Your task to perform on an android device: Clear all items from cart on ebay. Search for "logitech g502" on ebay, select the first entry, and add it to the cart. Image 0: 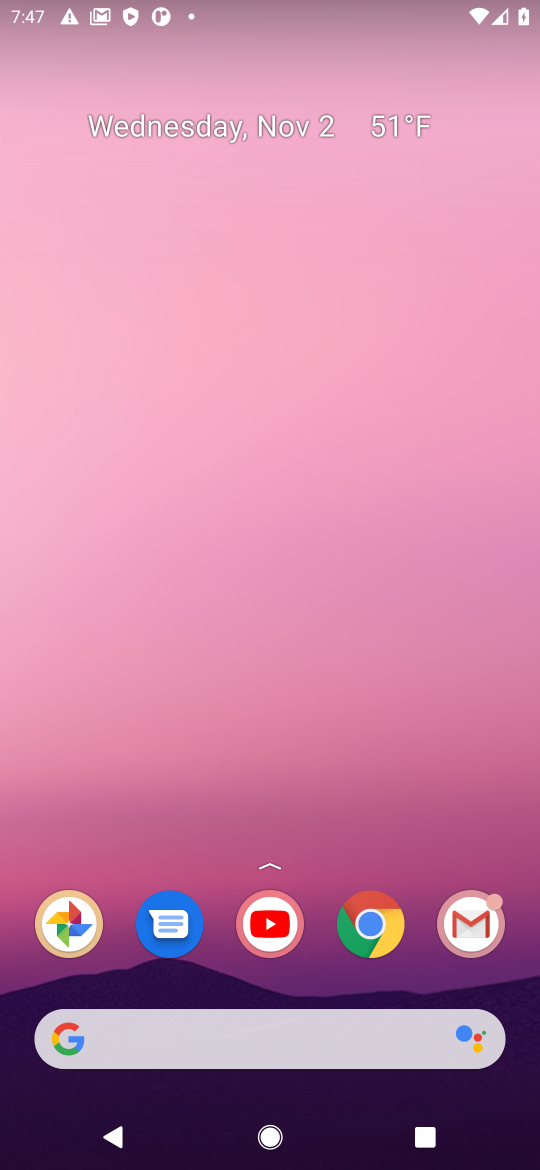
Step 0: click (380, 933)
Your task to perform on an android device: Clear all items from cart on ebay. Search for "logitech g502" on ebay, select the first entry, and add it to the cart. Image 1: 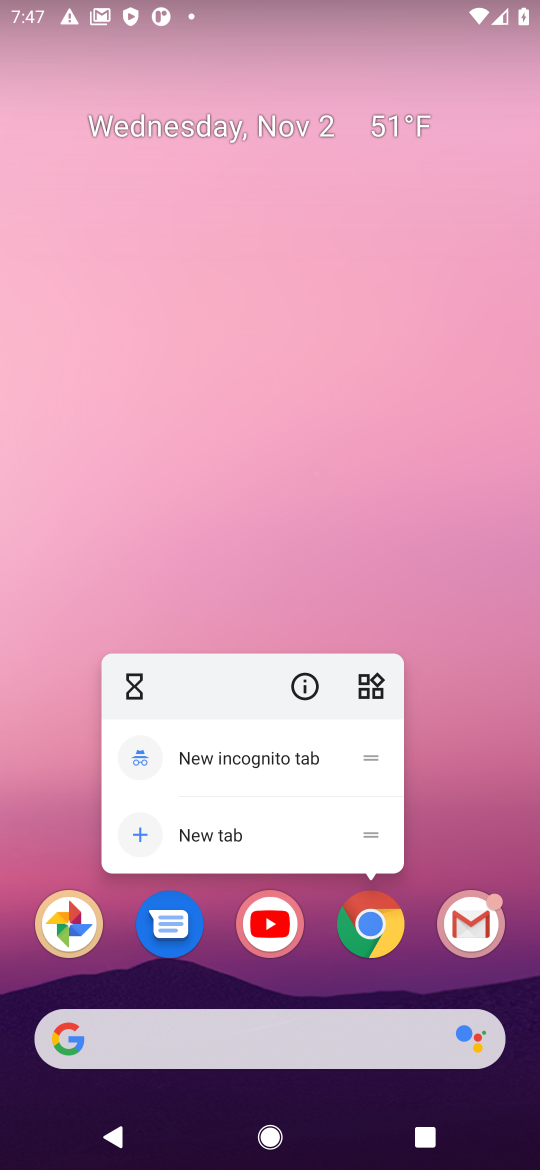
Step 1: click (383, 935)
Your task to perform on an android device: Clear all items from cart on ebay. Search for "logitech g502" on ebay, select the first entry, and add it to the cart. Image 2: 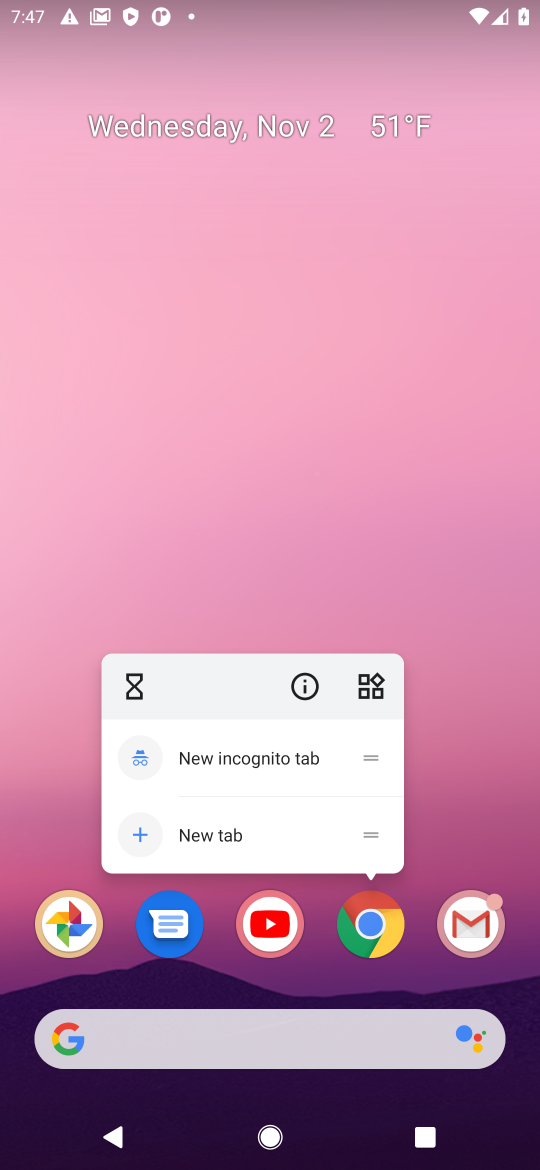
Step 2: click (384, 935)
Your task to perform on an android device: Clear all items from cart on ebay. Search for "logitech g502" on ebay, select the first entry, and add it to the cart. Image 3: 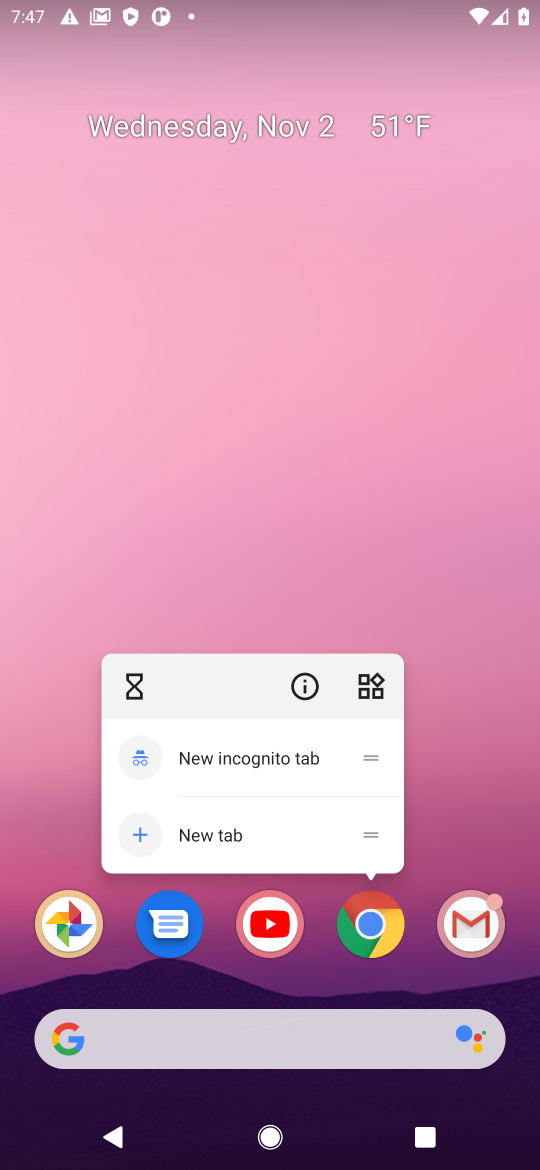
Step 3: click (386, 933)
Your task to perform on an android device: Clear all items from cart on ebay. Search for "logitech g502" on ebay, select the first entry, and add it to the cart. Image 4: 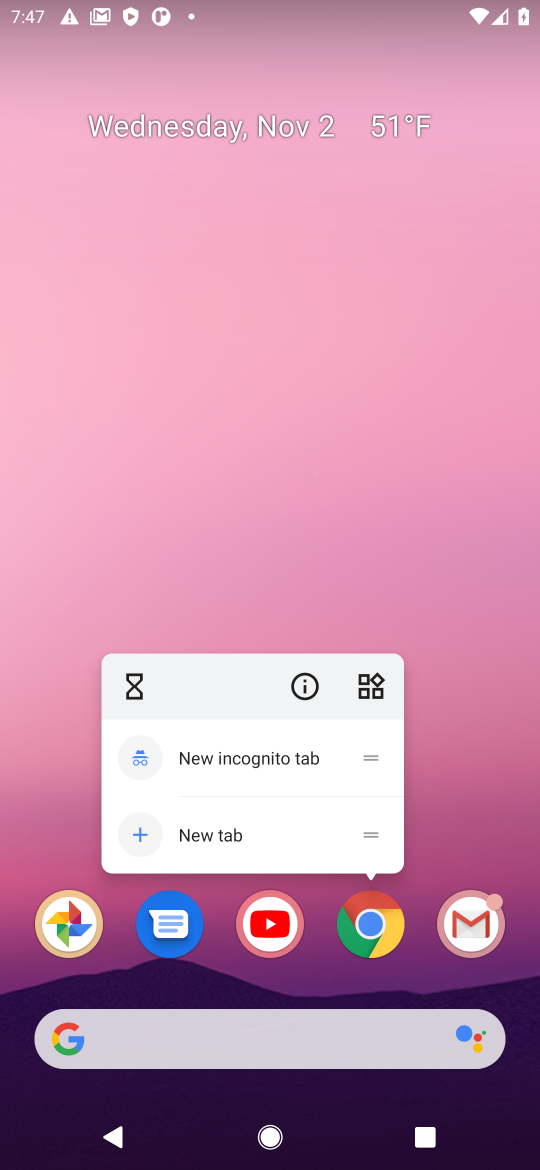
Step 4: press home button
Your task to perform on an android device: Clear all items from cart on ebay. Search for "logitech g502" on ebay, select the first entry, and add it to the cart. Image 5: 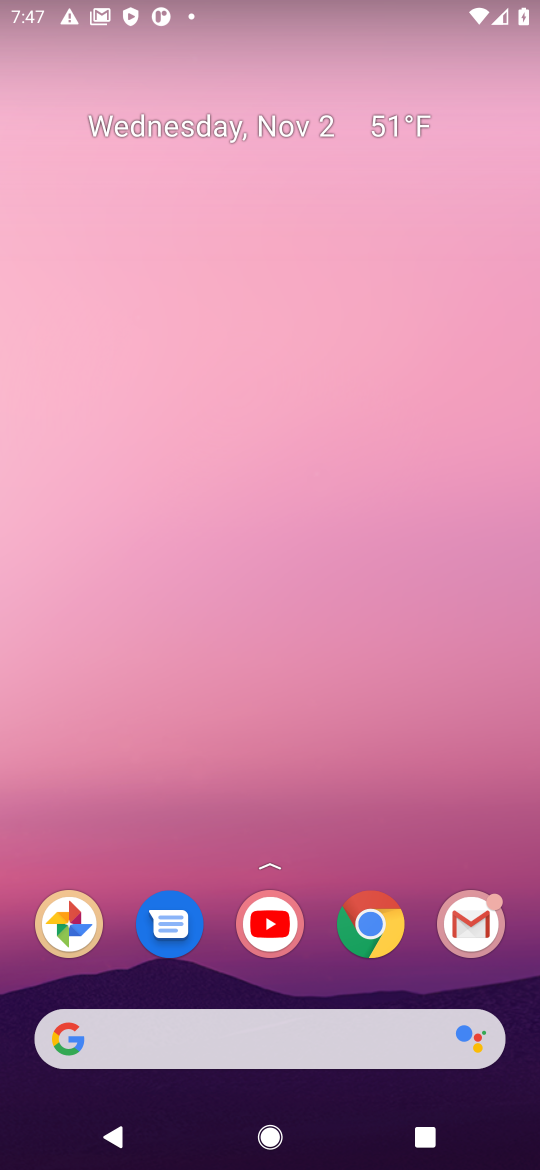
Step 5: press home button
Your task to perform on an android device: Clear all items from cart on ebay. Search for "logitech g502" on ebay, select the first entry, and add it to the cart. Image 6: 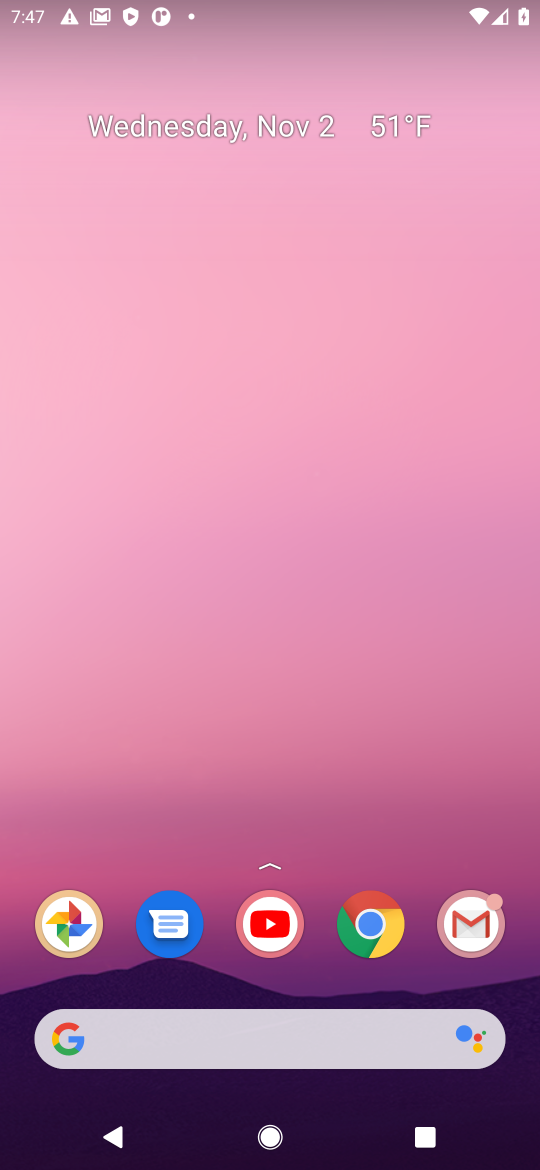
Step 6: press home button
Your task to perform on an android device: Clear all items from cart on ebay. Search for "logitech g502" on ebay, select the first entry, and add it to the cart. Image 7: 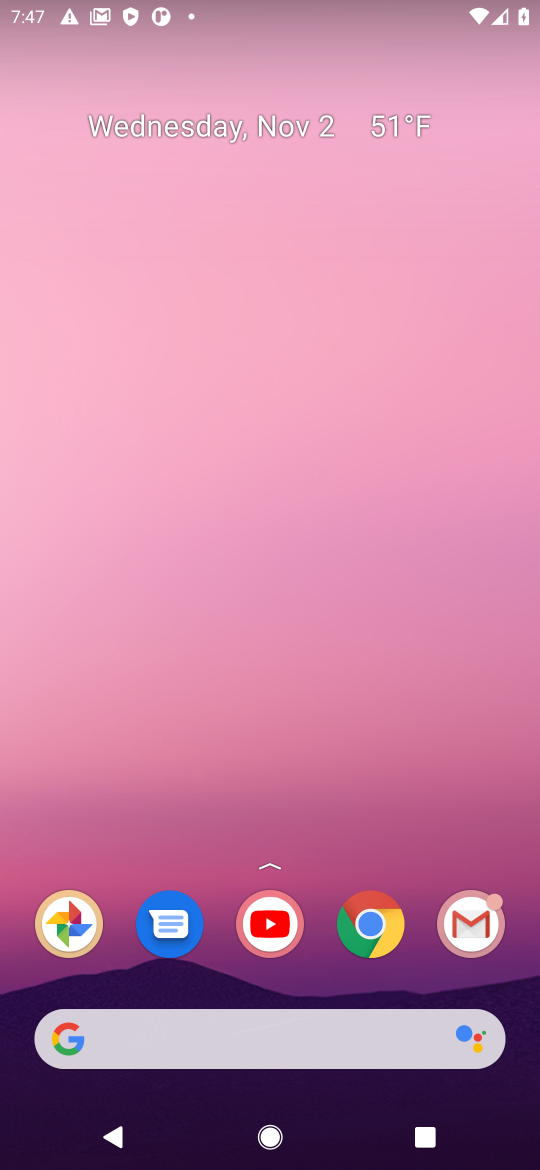
Step 7: press home button
Your task to perform on an android device: Clear all items from cart on ebay. Search for "logitech g502" on ebay, select the first entry, and add it to the cart. Image 8: 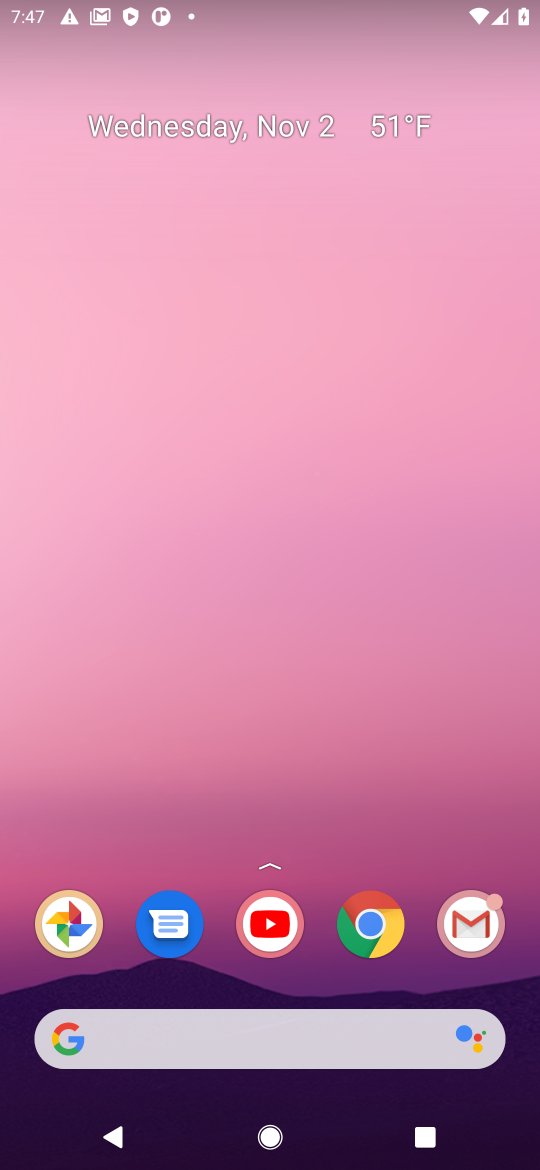
Step 8: click (381, 934)
Your task to perform on an android device: Clear all items from cart on ebay. Search for "logitech g502" on ebay, select the first entry, and add it to the cart. Image 9: 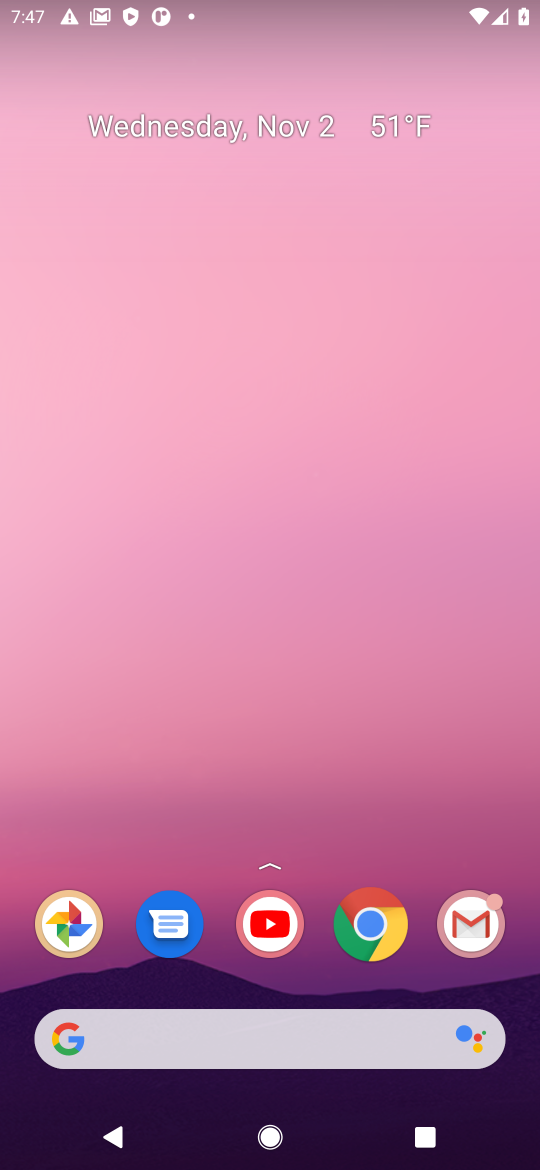
Step 9: click (360, 934)
Your task to perform on an android device: Clear all items from cart on ebay. Search for "logitech g502" on ebay, select the first entry, and add it to the cart. Image 10: 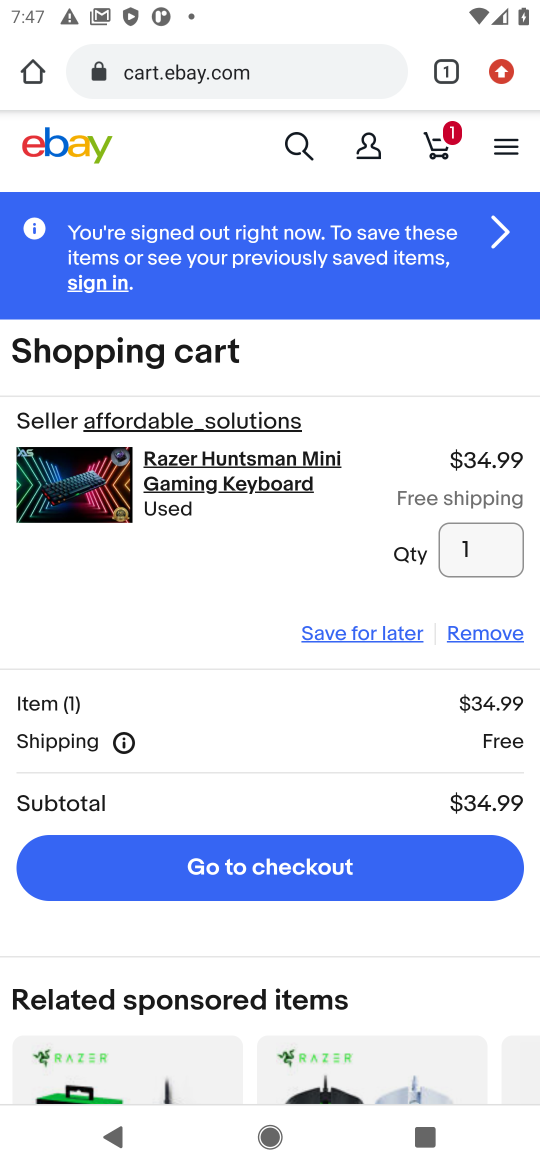
Step 10: press back button
Your task to perform on an android device: Clear all items from cart on ebay. Search for "logitech g502" on ebay, select the first entry, and add it to the cart. Image 11: 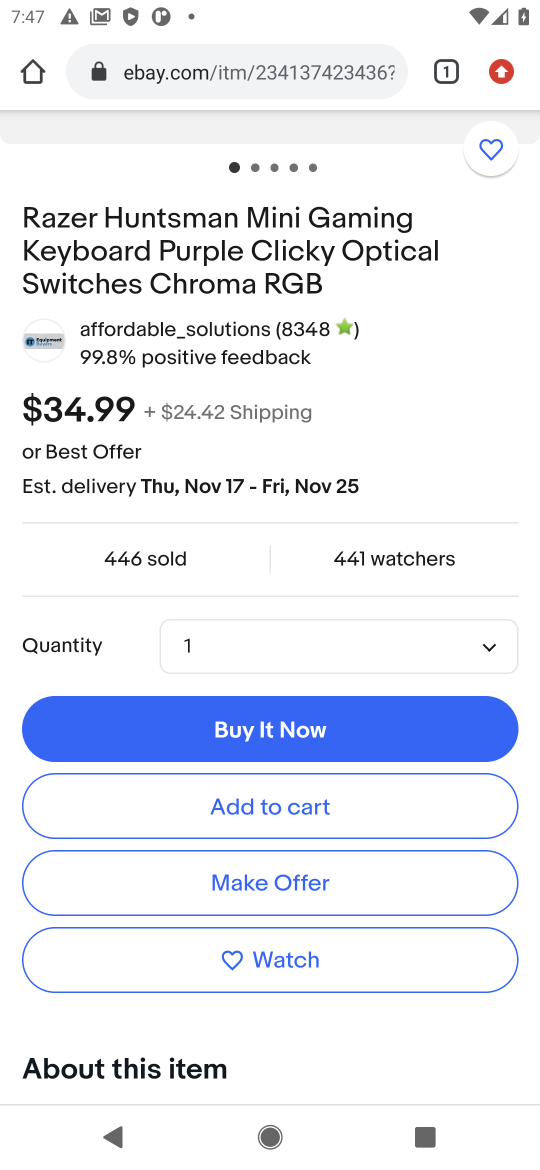
Step 11: press back button
Your task to perform on an android device: Clear all items from cart on ebay. Search for "logitech g502" on ebay, select the first entry, and add it to the cart. Image 12: 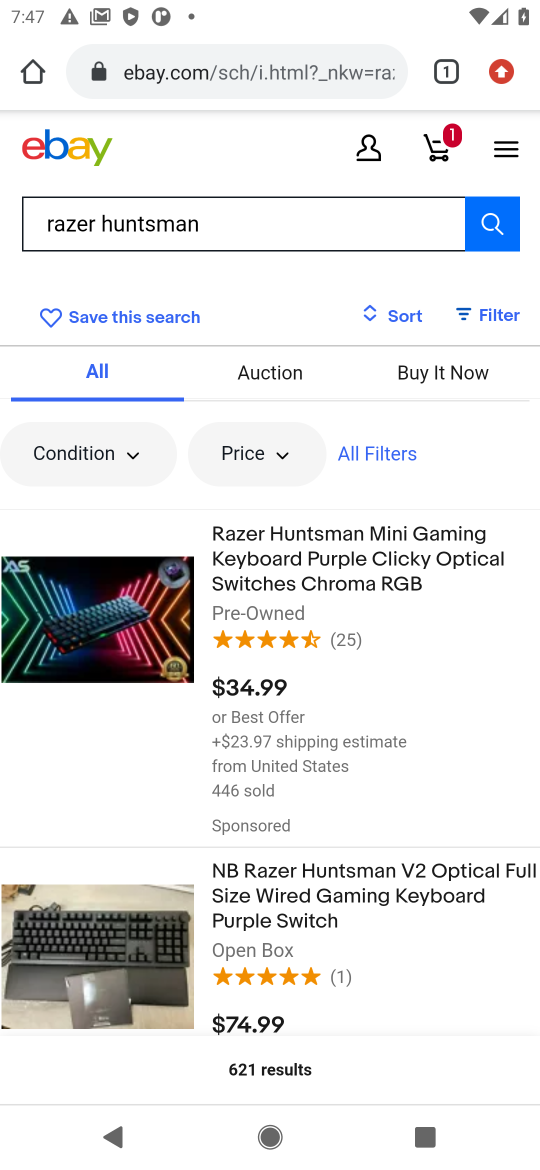
Step 12: click (375, 218)
Your task to perform on an android device: Clear all items from cart on ebay. Search for "logitech g502" on ebay, select the first entry, and add it to the cart. Image 13: 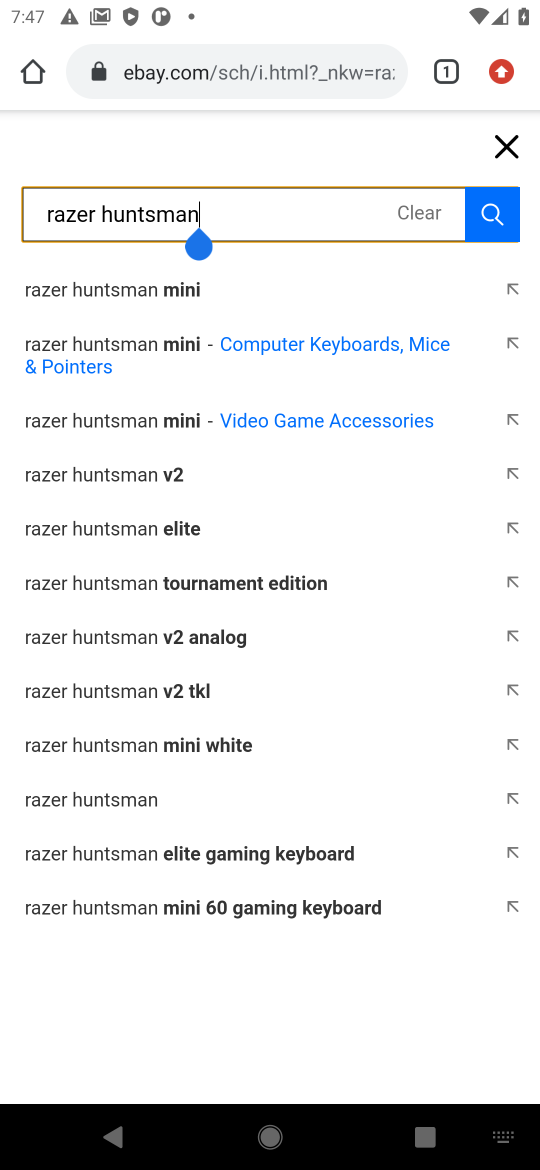
Step 13: click (408, 214)
Your task to perform on an android device: Clear all items from cart on ebay. Search for "logitech g502" on ebay, select the first entry, and add it to the cart. Image 14: 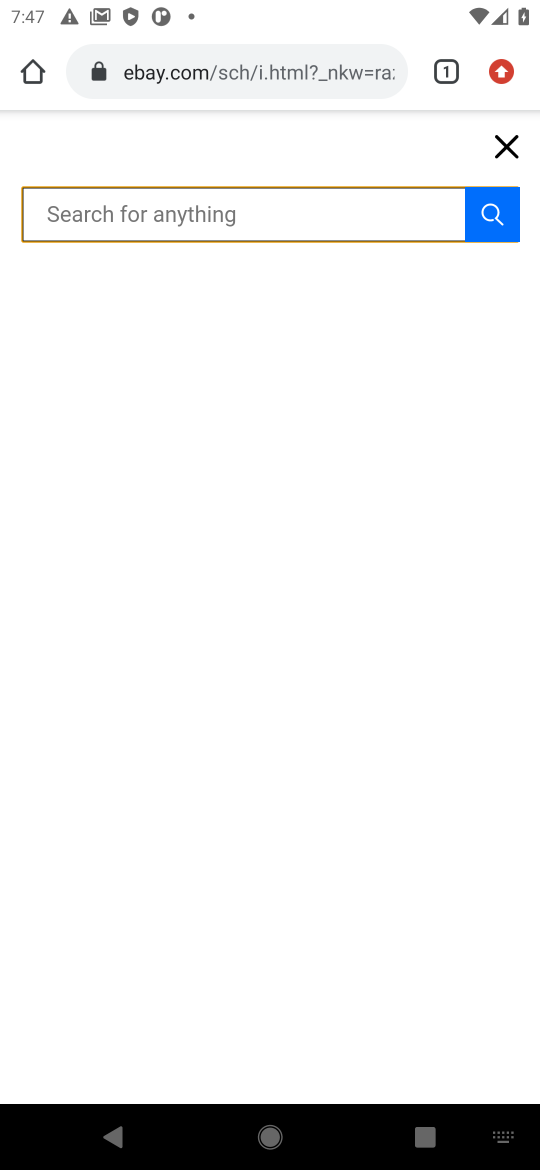
Step 14: type "logitech g 502"
Your task to perform on an android device: Clear all items from cart on ebay. Search for "logitech g502" on ebay, select the first entry, and add it to the cart. Image 15: 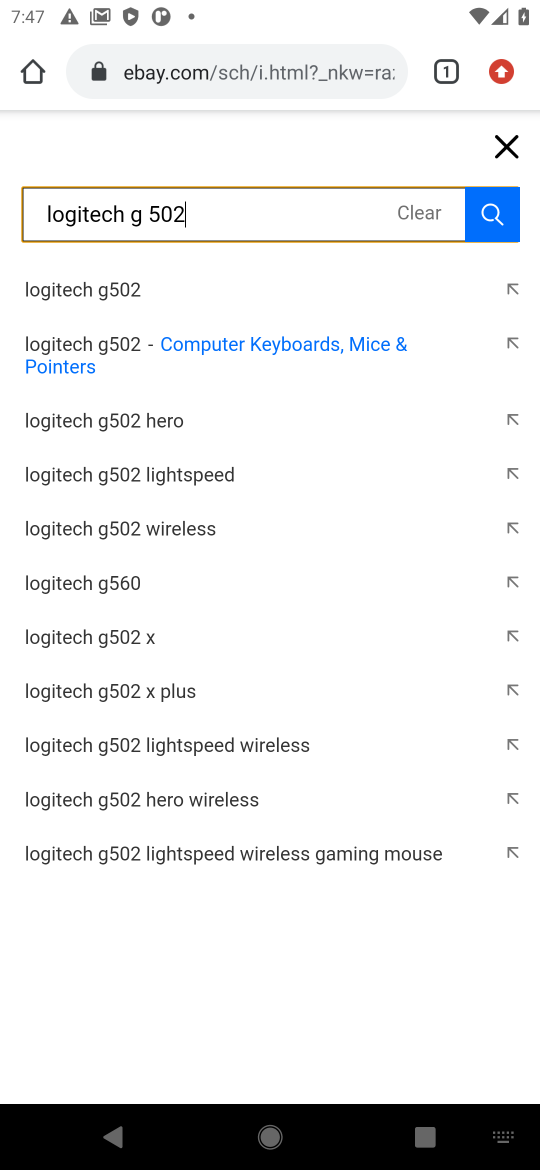
Step 15: click (72, 282)
Your task to perform on an android device: Clear all items from cart on ebay. Search for "logitech g502" on ebay, select the first entry, and add it to the cart. Image 16: 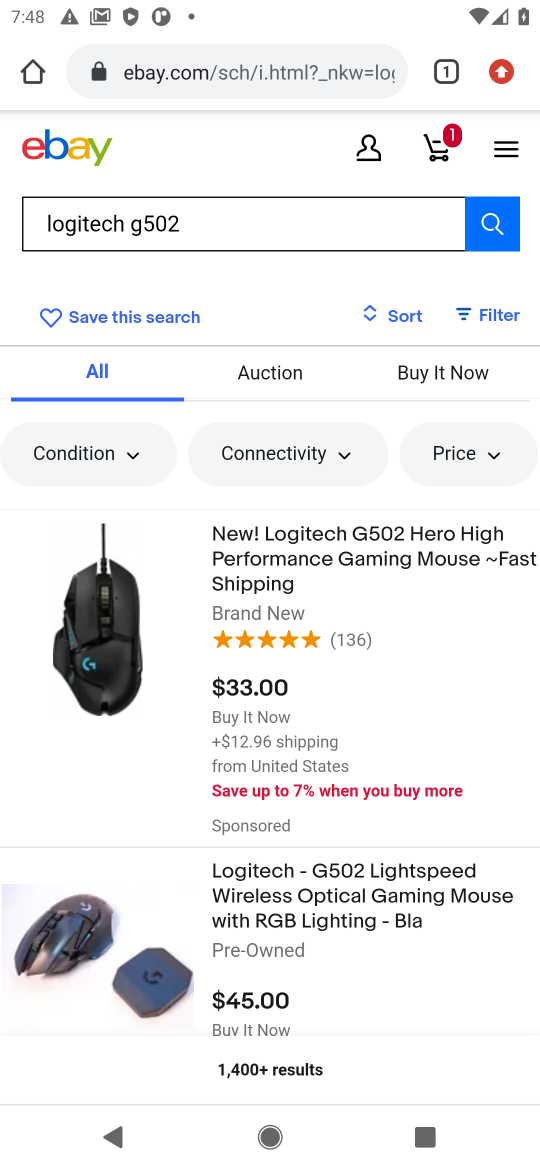
Step 16: click (293, 536)
Your task to perform on an android device: Clear all items from cart on ebay. Search for "logitech g502" on ebay, select the first entry, and add it to the cart. Image 17: 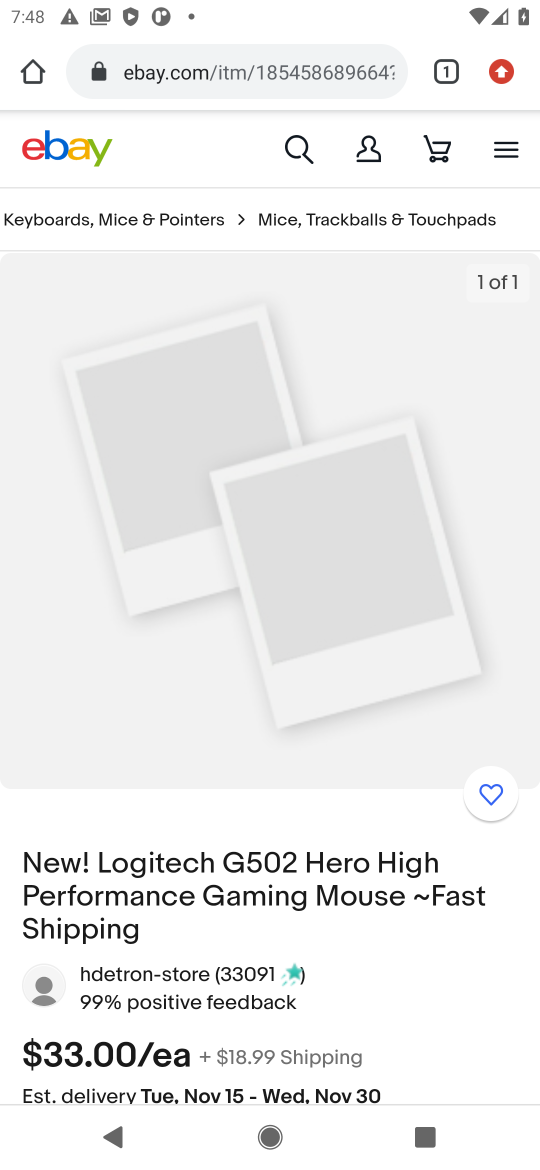
Step 17: drag from (229, 929) to (268, 494)
Your task to perform on an android device: Clear all items from cart on ebay. Search for "logitech g502" on ebay, select the first entry, and add it to the cart. Image 18: 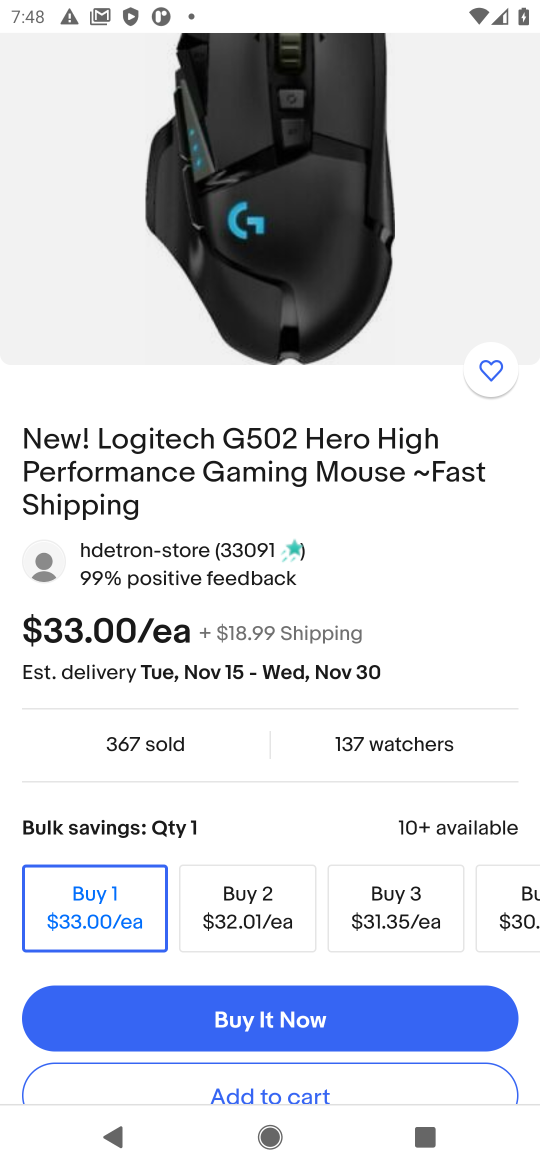
Step 18: click (279, 1081)
Your task to perform on an android device: Clear all items from cart on ebay. Search for "logitech g502" on ebay, select the first entry, and add it to the cart. Image 19: 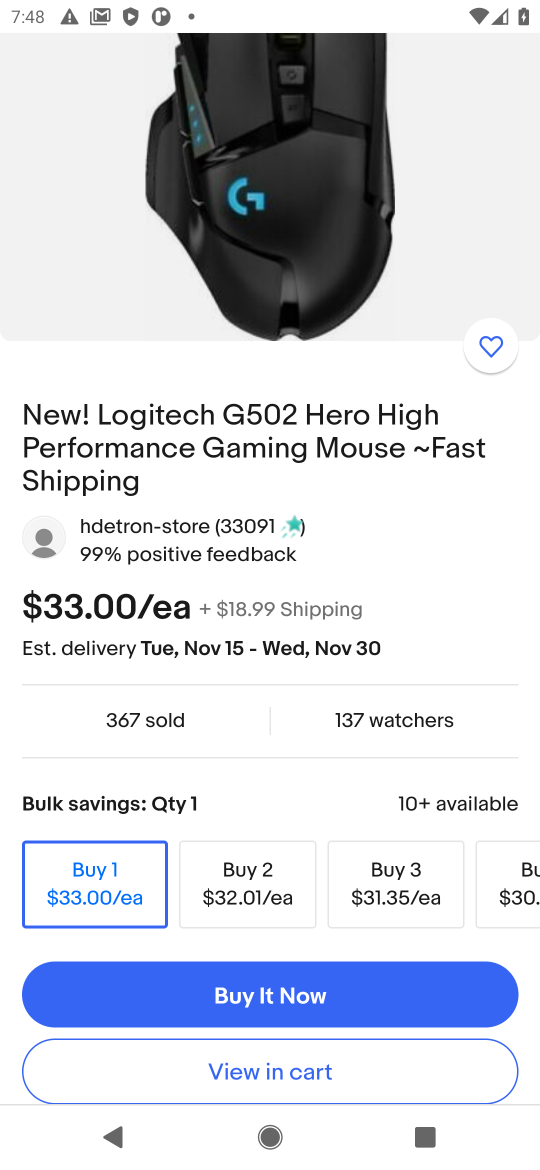
Step 19: click (260, 1067)
Your task to perform on an android device: Clear all items from cart on ebay. Search for "logitech g502" on ebay, select the first entry, and add it to the cart. Image 20: 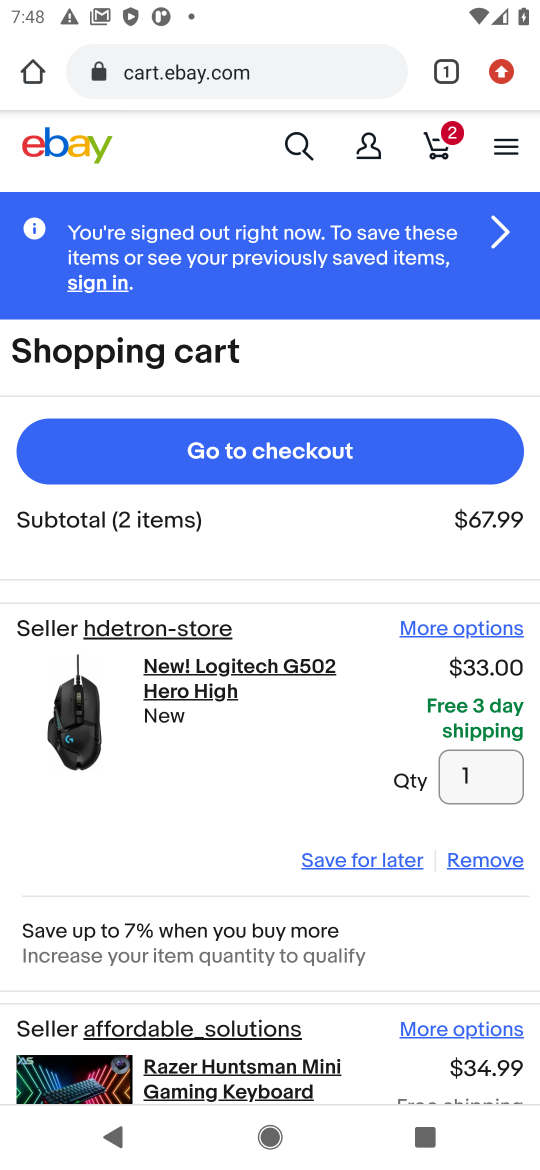
Step 20: drag from (186, 860) to (186, 595)
Your task to perform on an android device: Clear all items from cart on ebay. Search for "logitech g502" on ebay, select the first entry, and add it to the cart. Image 21: 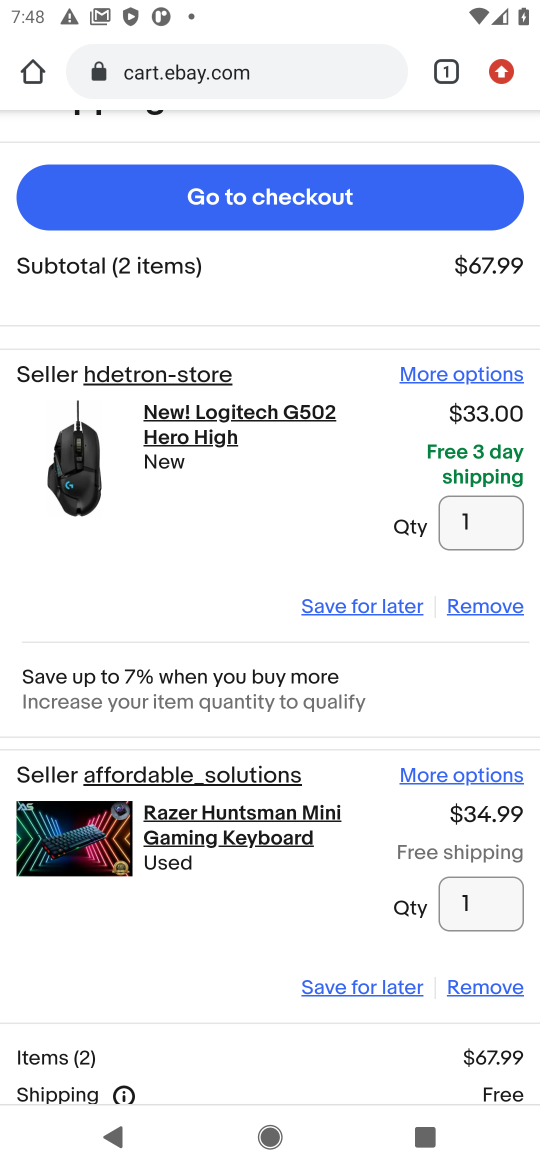
Step 21: drag from (250, 439) to (343, 979)
Your task to perform on an android device: Clear all items from cart on ebay. Search for "logitech g502" on ebay, select the first entry, and add it to the cart. Image 22: 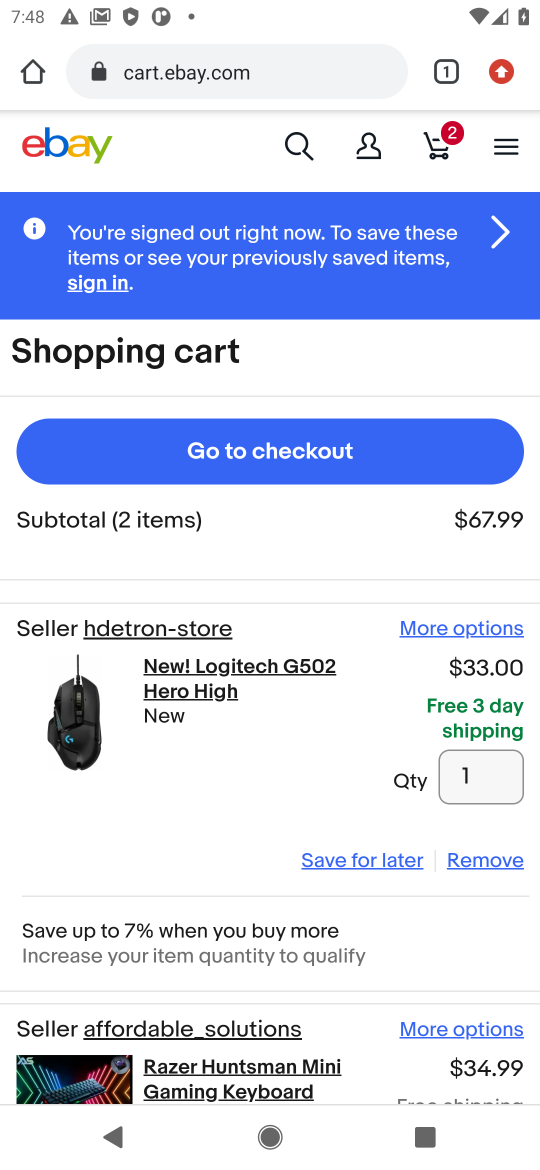
Step 22: click (448, 157)
Your task to perform on an android device: Clear all items from cart on ebay. Search for "logitech g502" on ebay, select the first entry, and add it to the cart. Image 23: 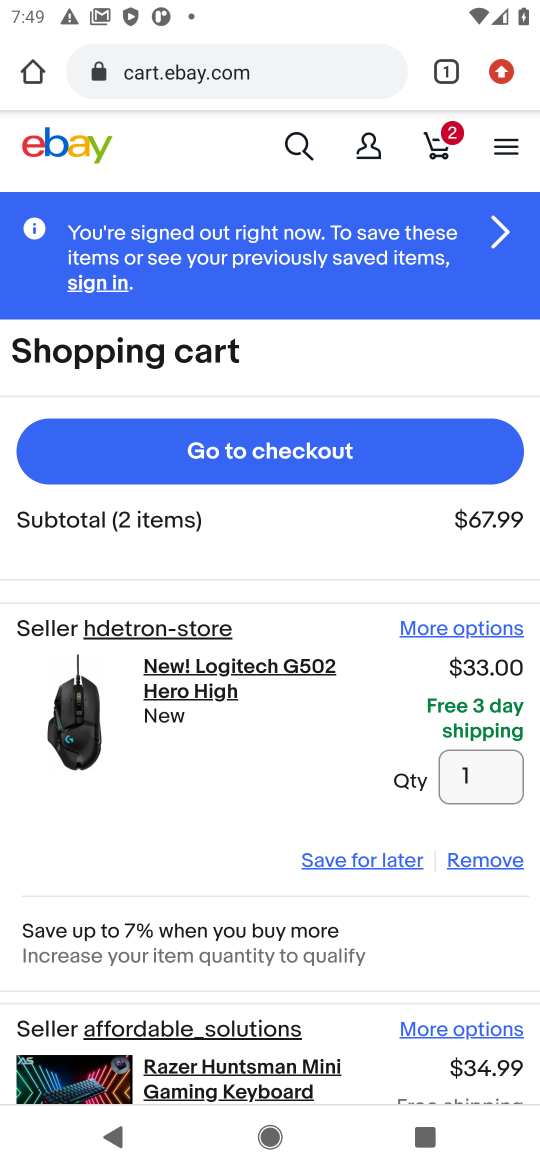
Step 23: task complete